Your task to perform on an android device: Search for vegetarian restaurants on Maps Image 0: 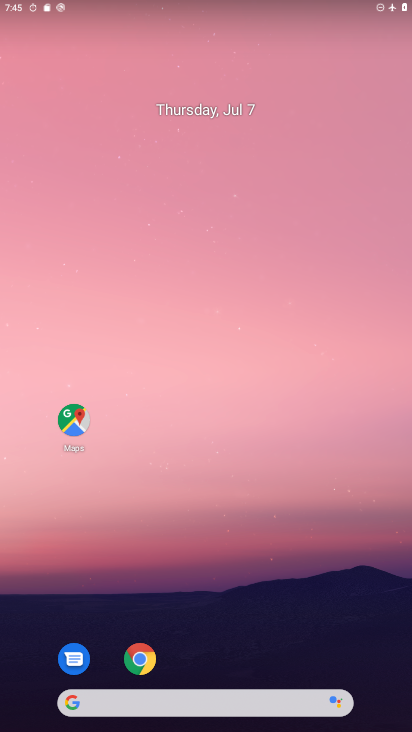
Step 0: drag from (376, 676) to (175, 1)
Your task to perform on an android device: Search for vegetarian restaurants on Maps Image 1: 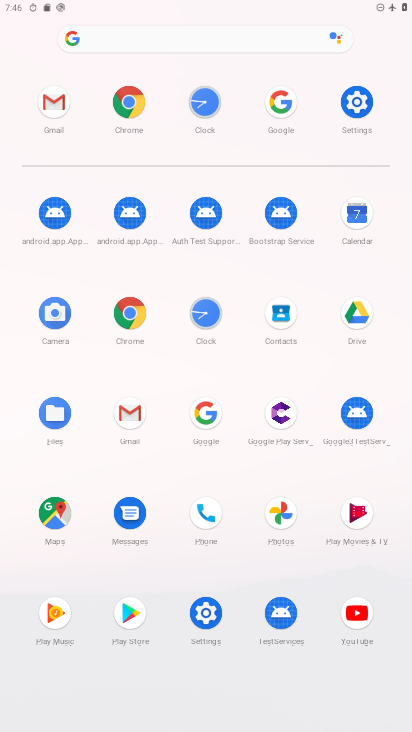
Step 1: click (61, 509)
Your task to perform on an android device: Search for vegetarian restaurants on Maps Image 2: 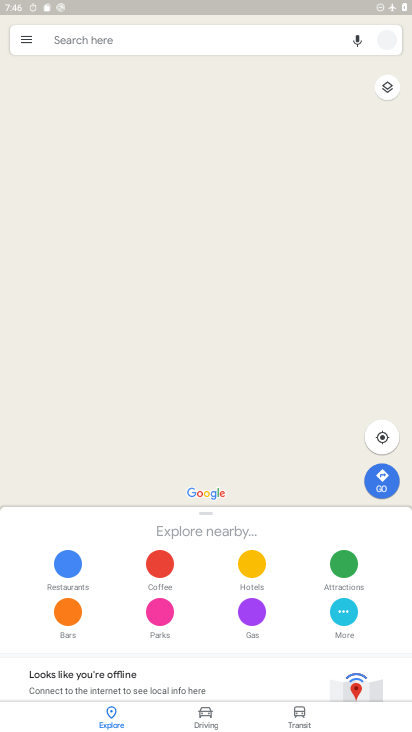
Step 2: click (146, 42)
Your task to perform on an android device: Search for vegetarian restaurants on Maps Image 3: 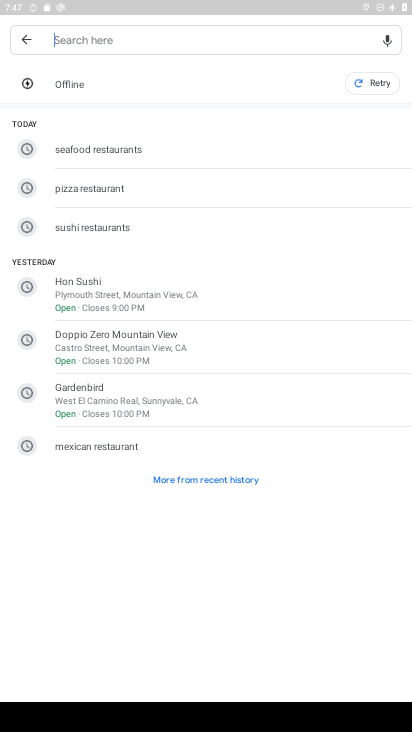
Step 3: type "vegetarian restaurants"
Your task to perform on an android device: Search for vegetarian restaurants on Maps Image 4: 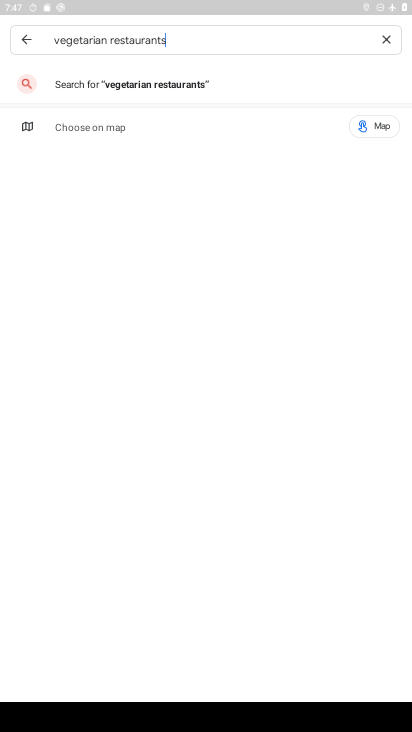
Step 4: click (156, 80)
Your task to perform on an android device: Search for vegetarian restaurants on Maps Image 5: 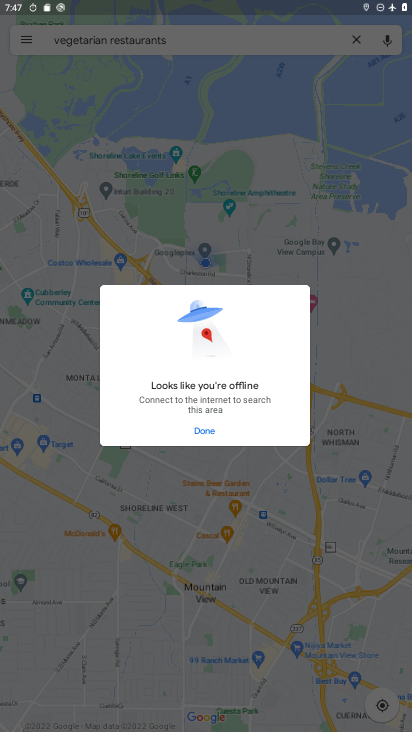
Step 5: task complete